Your task to perform on an android device: toggle priority inbox in the gmail app Image 0: 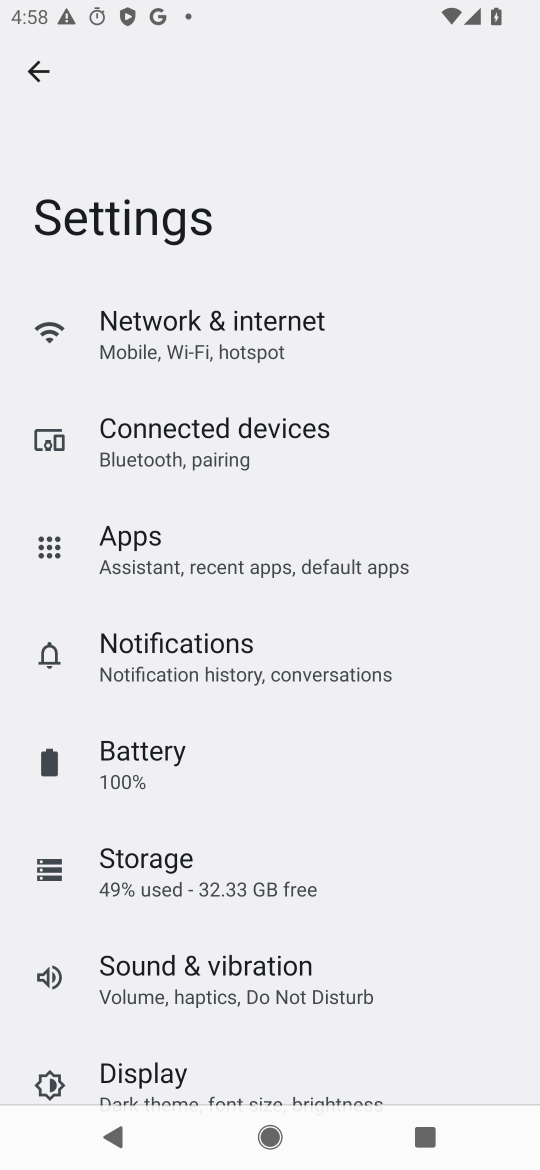
Step 0: press home button
Your task to perform on an android device: toggle priority inbox in the gmail app Image 1: 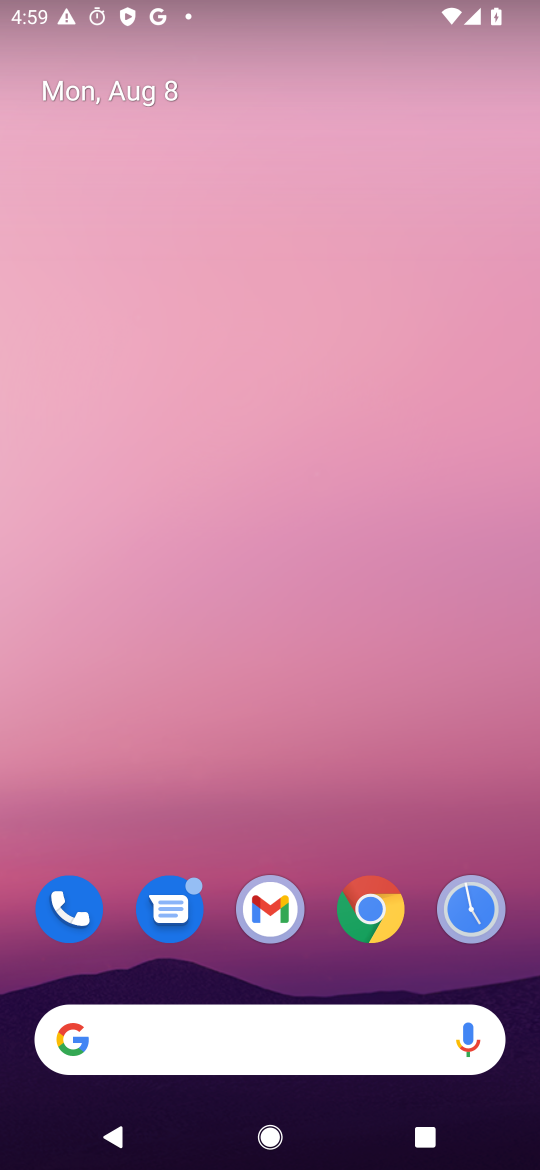
Step 1: click (275, 909)
Your task to perform on an android device: toggle priority inbox in the gmail app Image 2: 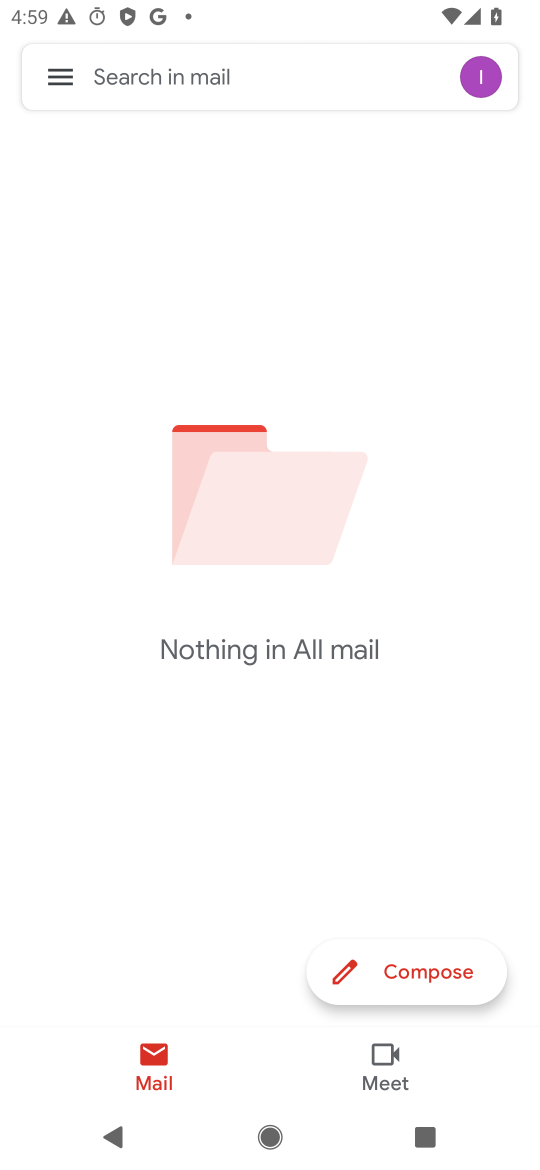
Step 2: click (55, 72)
Your task to perform on an android device: toggle priority inbox in the gmail app Image 3: 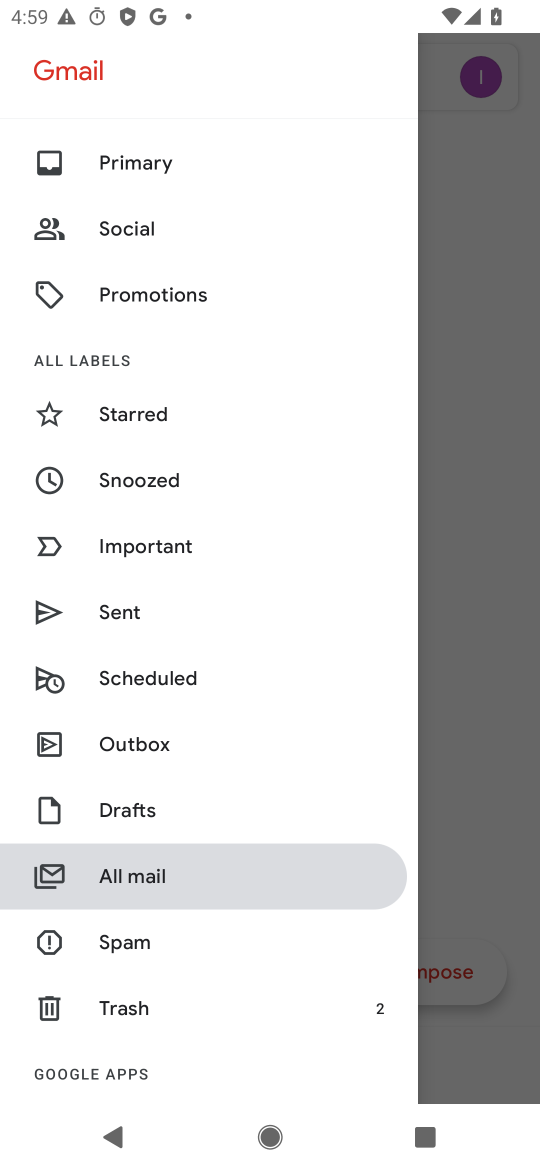
Step 3: drag from (198, 846) to (425, 250)
Your task to perform on an android device: toggle priority inbox in the gmail app Image 4: 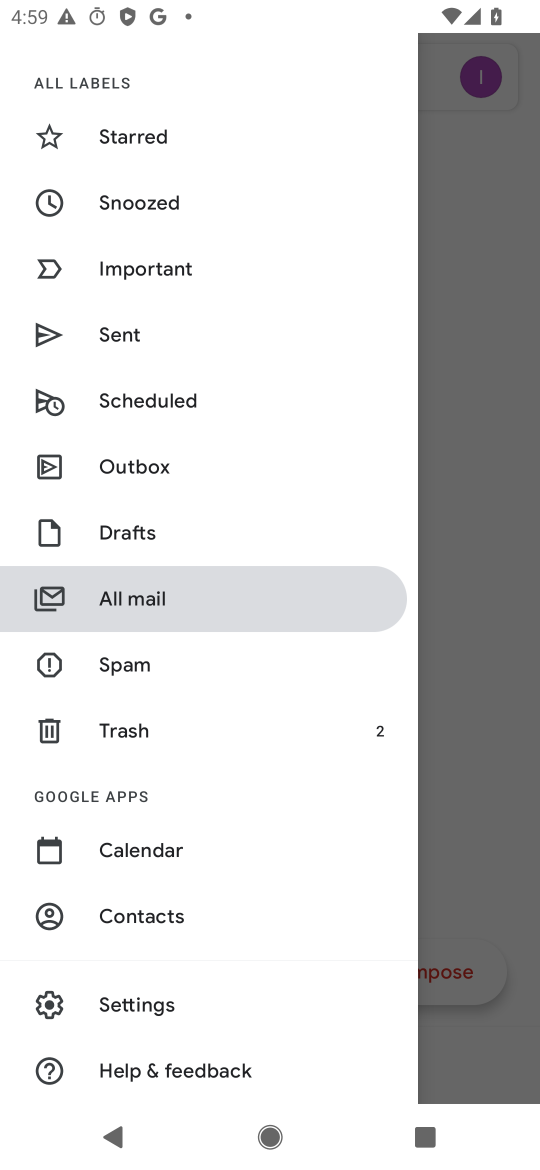
Step 4: click (157, 1007)
Your task to perform on an android device: toggle priority inbox in the gmail app Image 5: 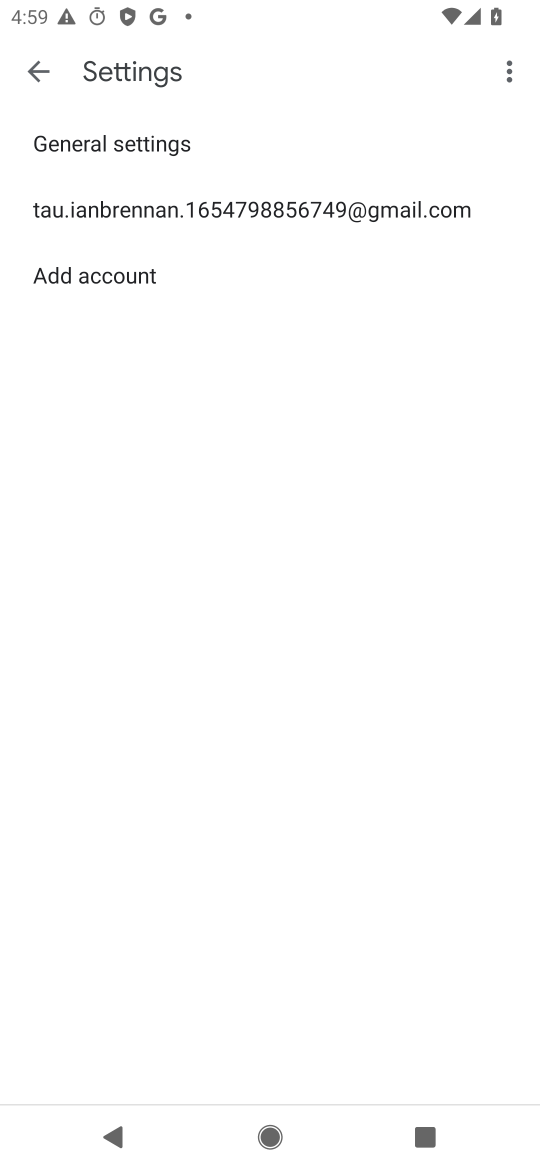
Step 5: click (409, 207)
Your task to perform on an android device: toggle priority inbox in the gmail app Image 6: 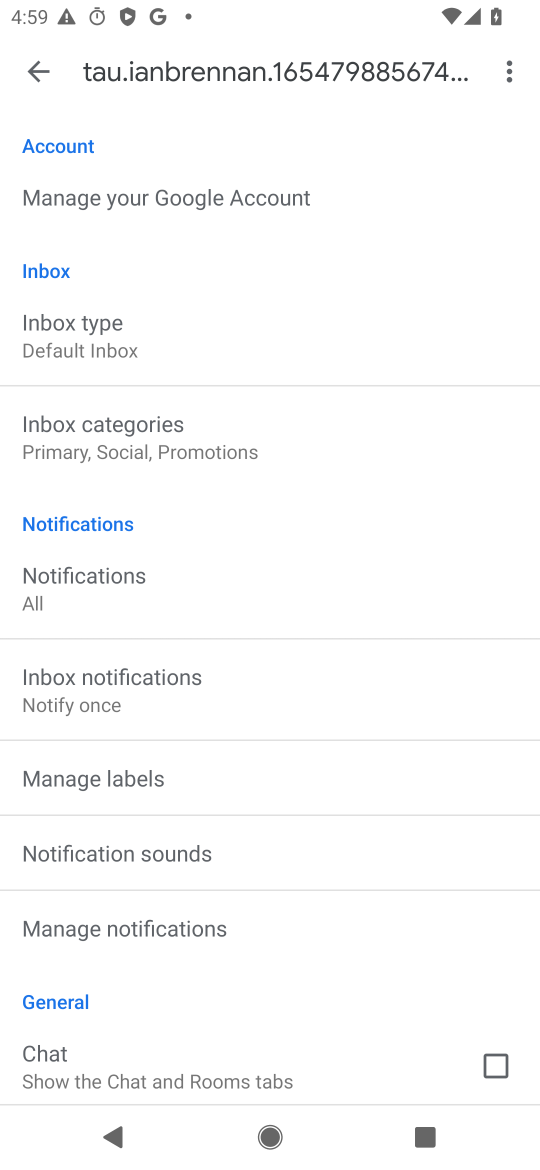
Step 6: click (107, 348)
Your task to perform on an android device: toggle priority inbox in the gmail app Image 7: 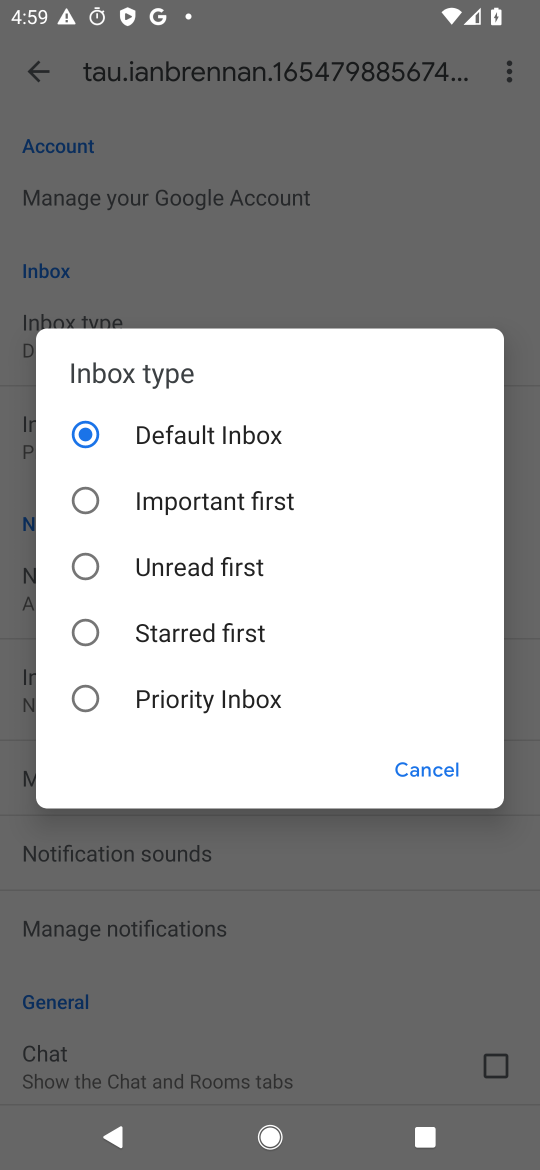
Step 7: click (89, 700)
Your task to perform on an android device: toggle priority inbox in the gmail app Image 8: 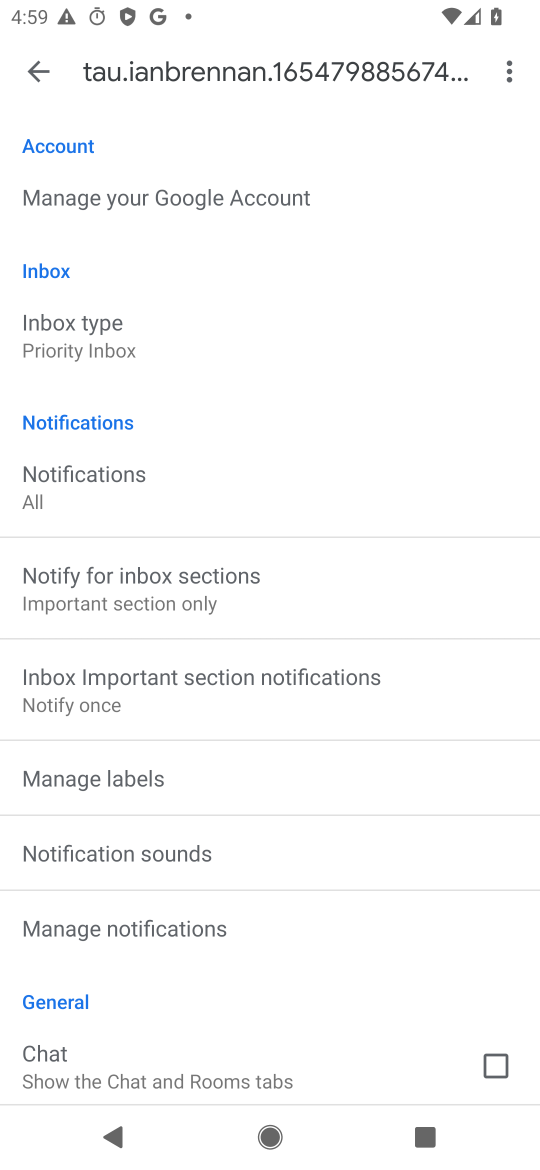
Step 8: task complete